Your task to perform on an android device: see tabs open on other devices in the chrome app Image 0: 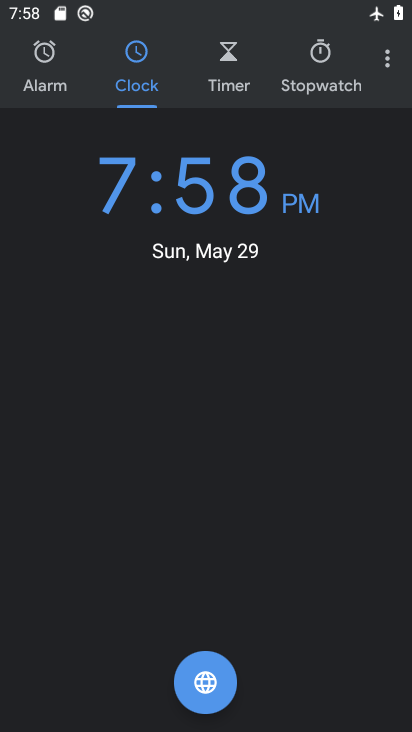
Step 0: press home button
Your task to perform on an android device: see tabs open on other devices in the chrome app Image 1: 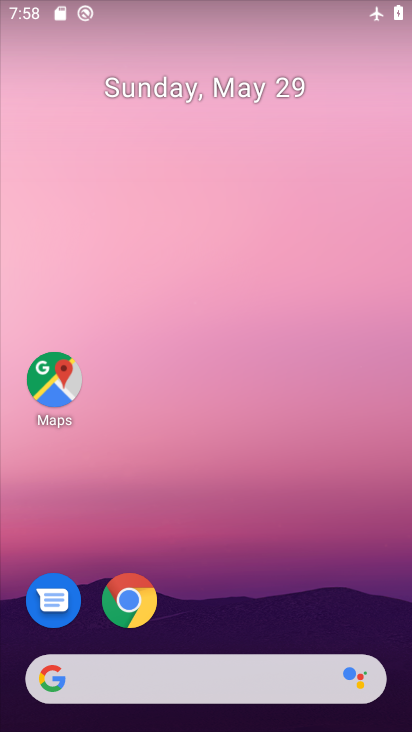
Step 1: drag from (216, 631) to (201, 50)
Your task to perform on an android device: see tabs open on other devices in the chrome app Image 2: 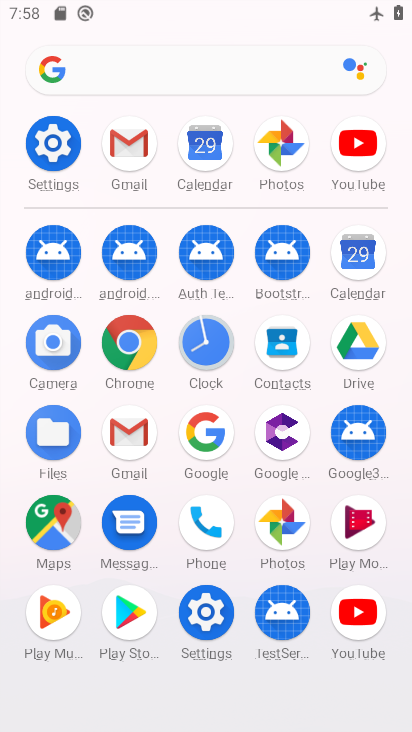
Step 2: click (131, 341)
Your task to perform on an android device: see tabs open on other devices in the chrome app Image 3: 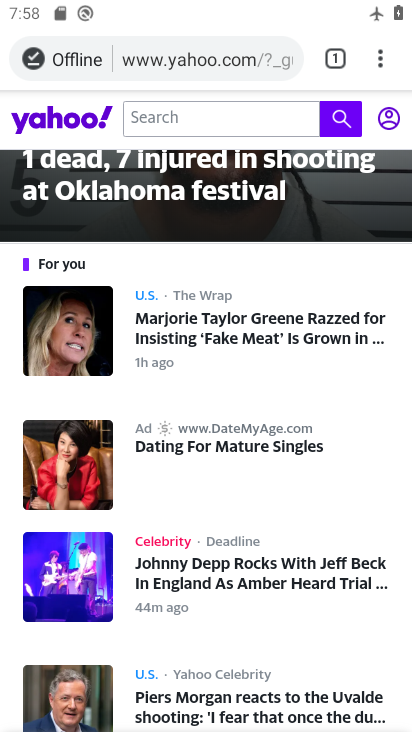
Step 3: click (384, 63)
Your task to perform on an android device: see tabs open on other devices in the chrome app Image 4: 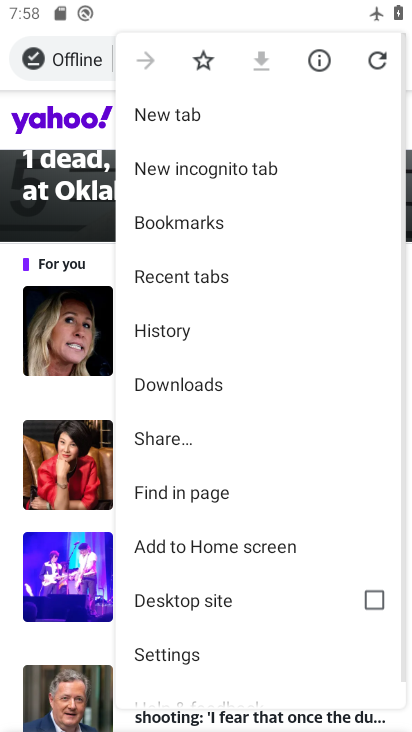
Step 4: click (204, 281)
Your task to perform on an android device: see tabs open on other devices in the chrome app Image 5: 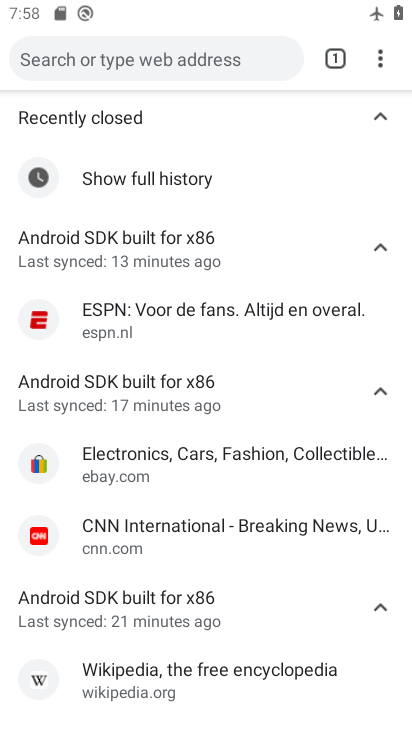
Step 5: task complete